Your task to perform on an android device: Open Google Maps Image 0: 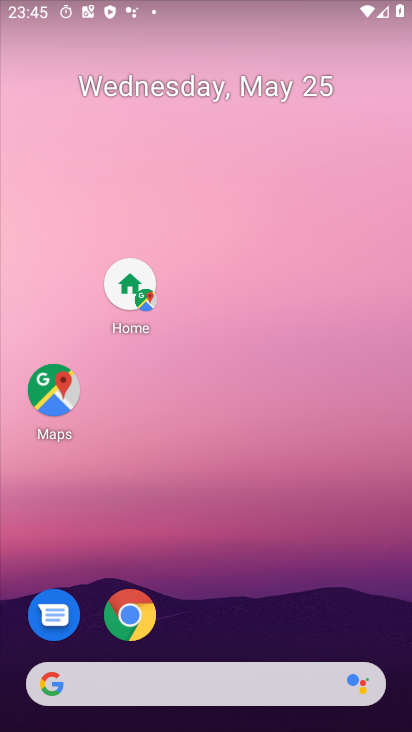
Step 0: press home button
Your task to perform on an android device: Open Google Maps Image 1: 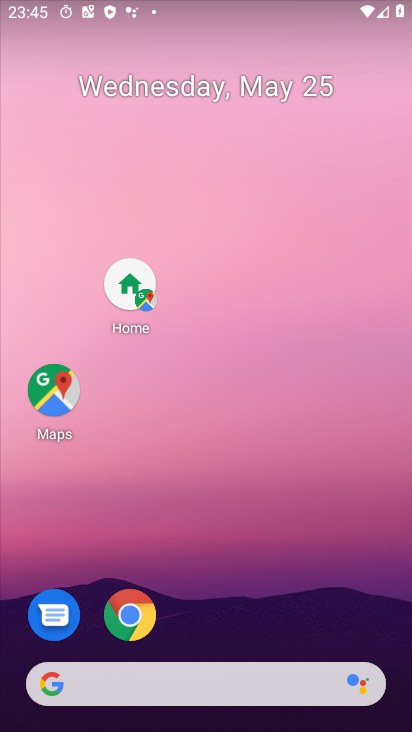
Step 1: click (55, 388)
Your task to perform on an android device: Open Google Maps Image 2: 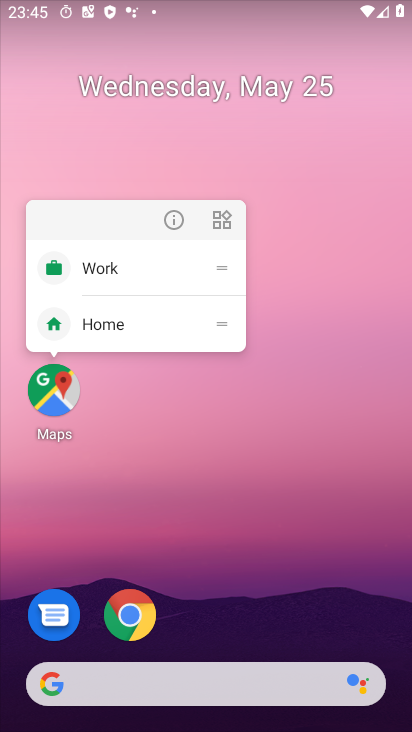
Step 2: click (55, 387)
Your task to perform on an android device: Open Google Maps Image 3: 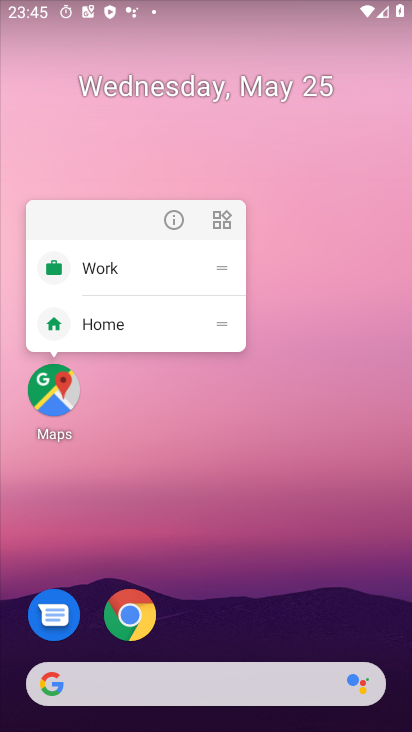
Step 3: click (64, 395)
Your task to perform on an android device: Open Google Maps Image 4: 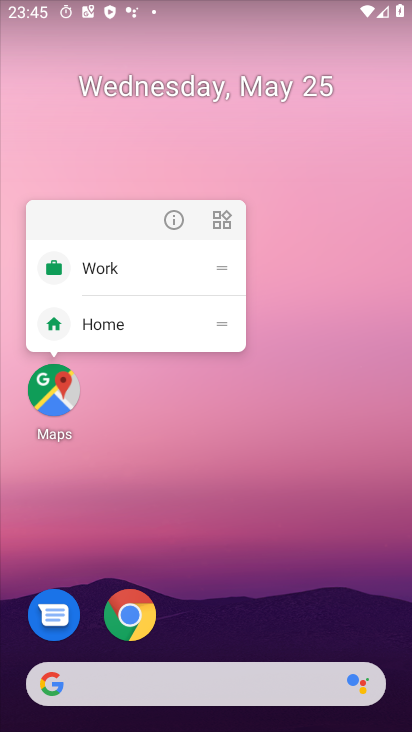
Step 4: click (61, 404)
Your task to perform on an android device: Open Google Maps Image 5: 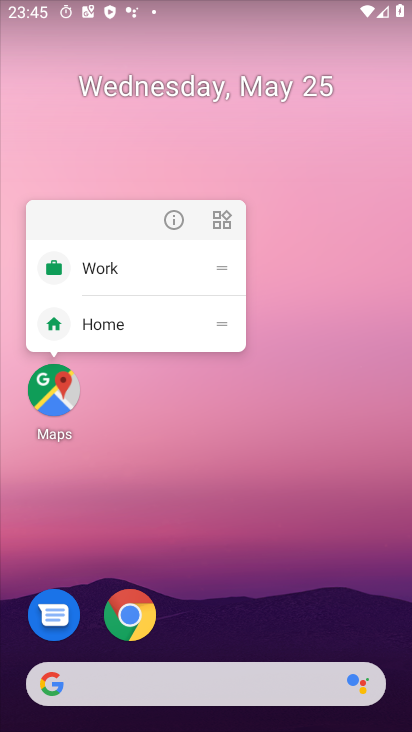
Step 5: click (302, 451)
Your task to perform on an android device: Open Google Maps Image 6: 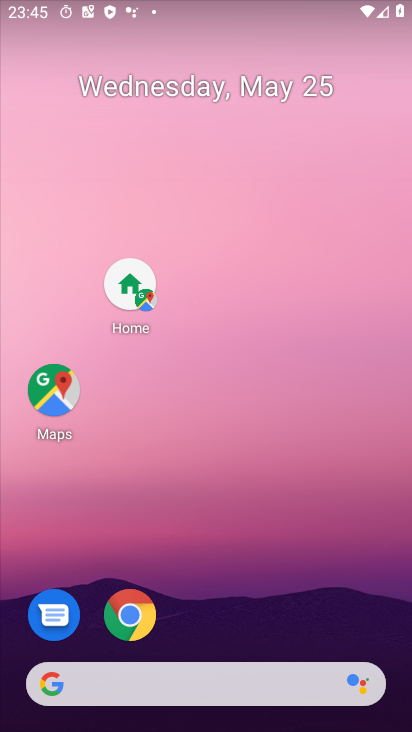
Step 6: click (59, 399)
Your task to perform on an android device: Open Google Maps Image 7: 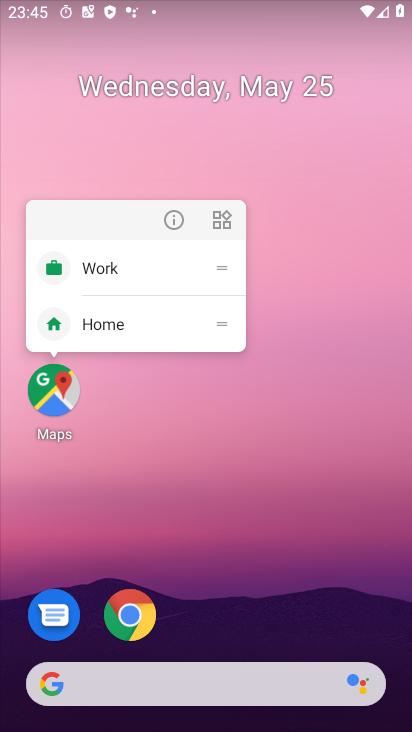
Step 7: click (53, 407)
Your task to perform on an android device: Open Google Maps Image 8: 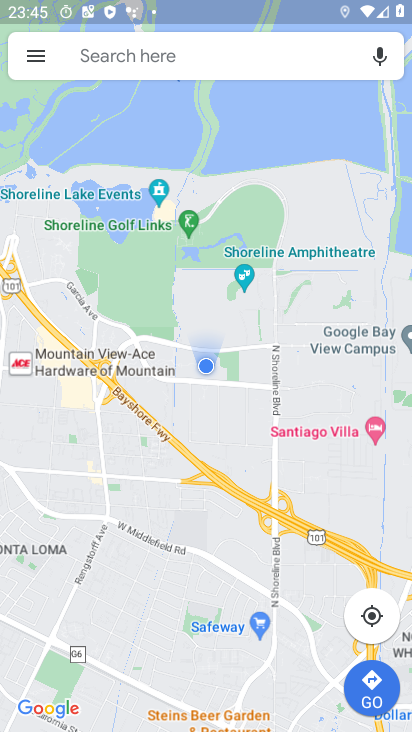
Step 8: task complete